Your task to perform on an android device: allow cookies in the chrome app Image 0: 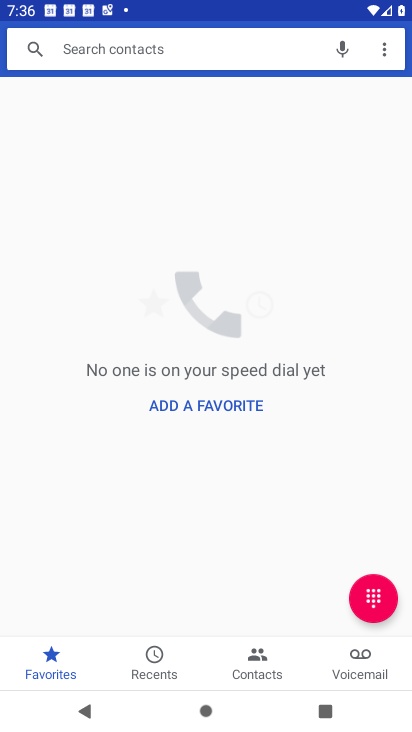
Step 0: press home button
Your task to perform on an android device: allow cookies in the chrome app Image 1: 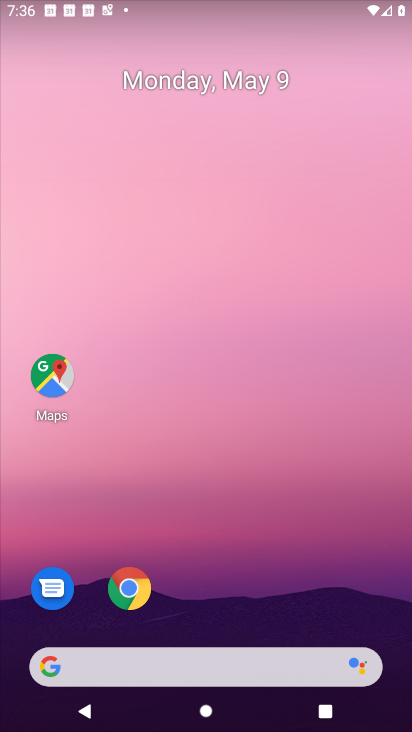
Step 1: drag from (150, 665) to (345, 119)
Your task to perform on an android device: allow cookies in the chrome app Image 2: 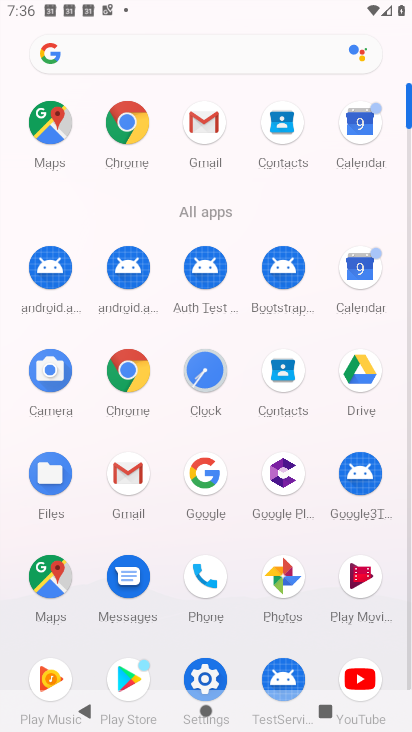
Step 2: click (128, 127)
Your task to perform on an android device: allow cookies in the chrome app Image 3: 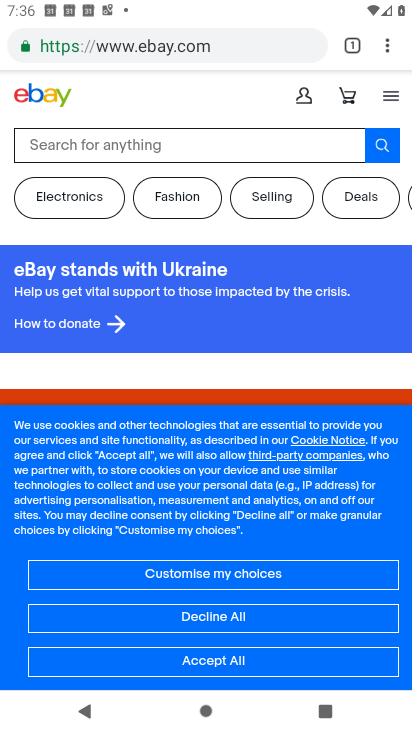
Step 3: drag from (385, 44) to (219, 551)
Your task to perform on an android device: allow cookies in the chrome app Image 4: 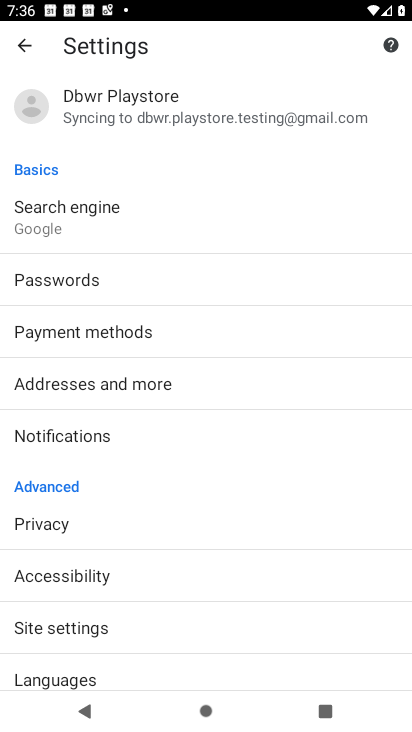
Step 4: click (103, 632)
Your task to perform on an android device: allow cookies in the chrome app Image 5: 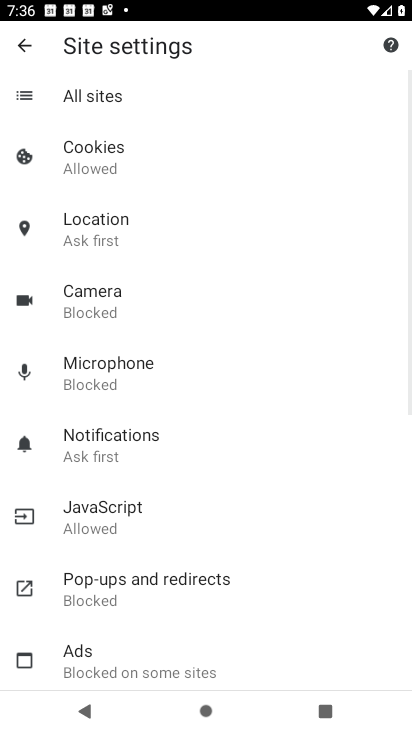
Step 5: click (110, 162)
Your task to perform on an android device: allow cookies in the chrome app Image 6: 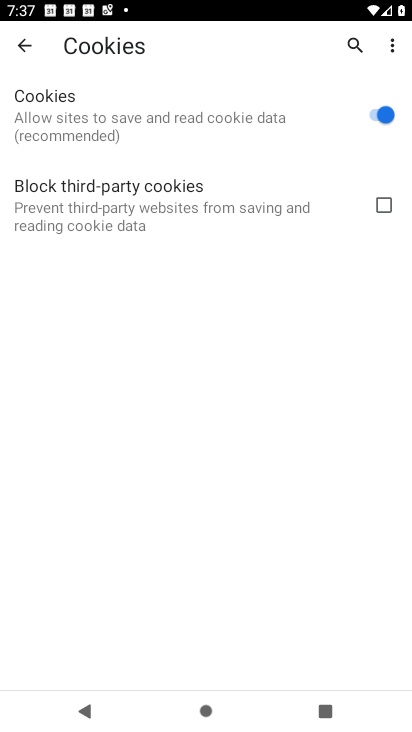
Step 6: task complete